Your task to perform on an android device: Check the weather Image 0: 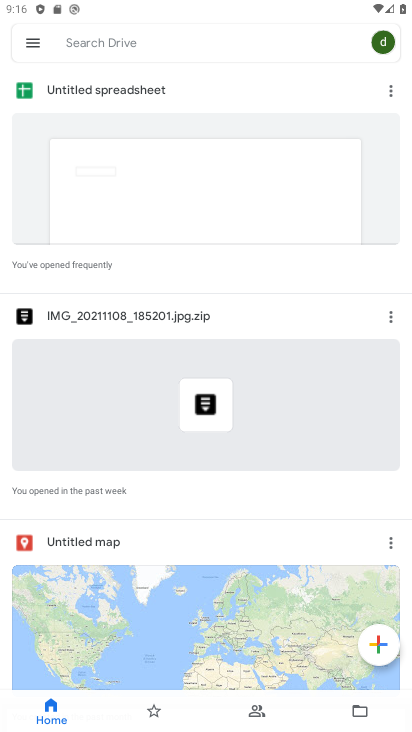
Step 0: press home button
Your task to perform on an android device: Check the weather Image 1: 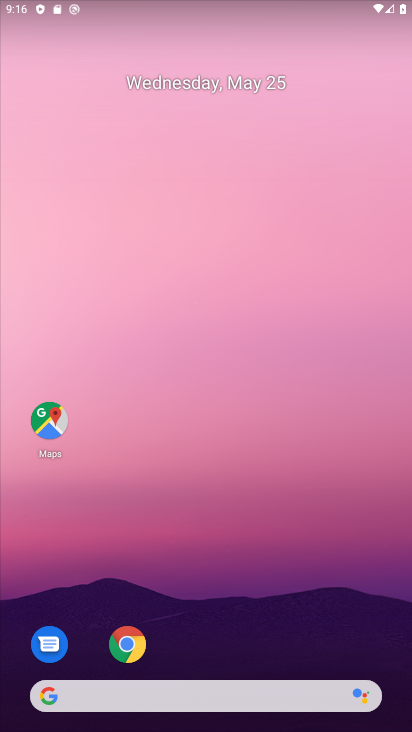
Step 1: click (118, 690)
Your task to perform on an android device: Check the weather Image 2: 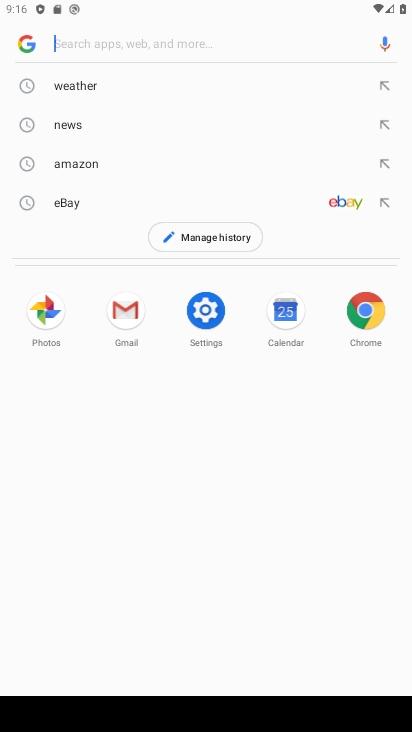
Step 2: click (67, 89)
Your task to perform on an android device: Check the weather Image 3: 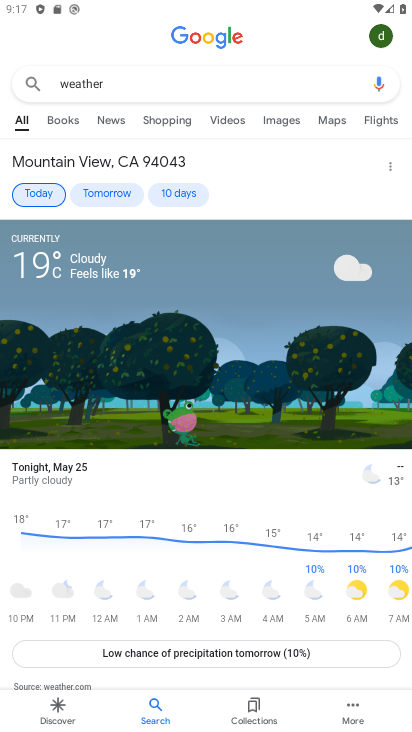
Step 3: task complete